Your task to perform on an android device: toggle translation in the chrome app Image 0: 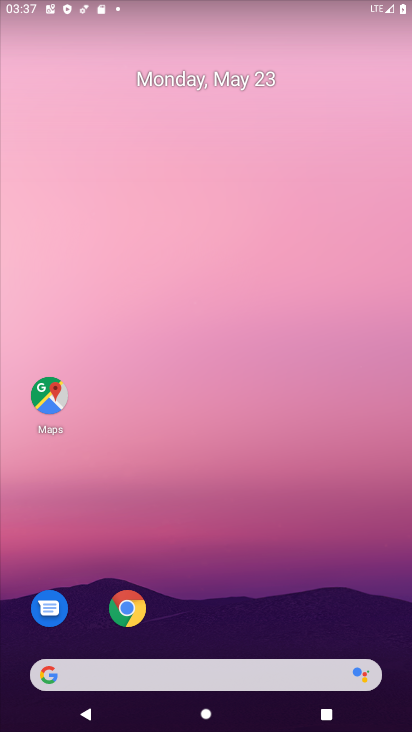
Step 0: click (127, 608)
Your task to perform on an android device: toggle translation in the chrome app Image 1: 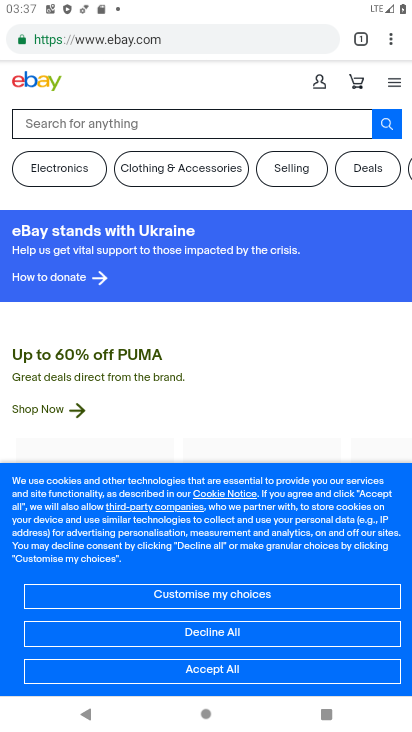
Step 1: click (392, 38)
Your task to perform on an android device: toggle translation in the chrome app Image 2: 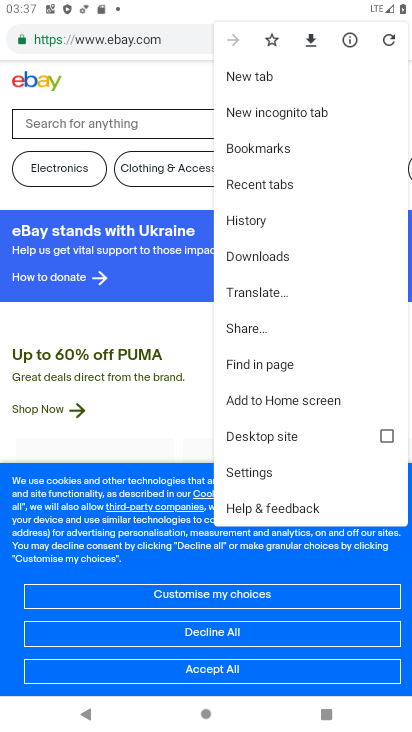
Step 2: click (267, 473)
Your task to perform on an android device: toggle translation in the chrome app Image 3: 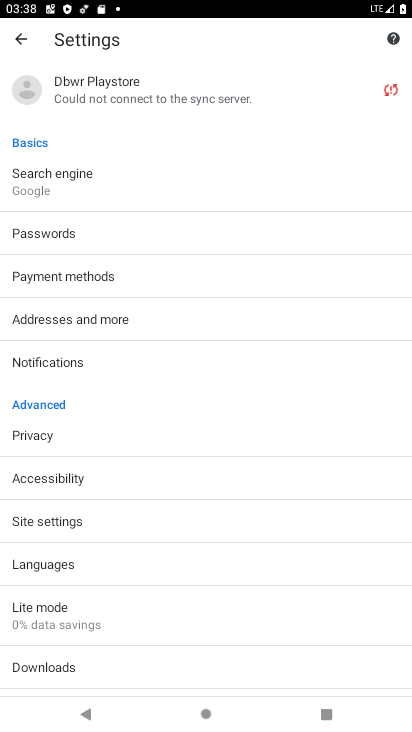
Step 3: drag from (119, 475) to (140, 398)
Your task to perform on an android device: toggle translation in the chrome app Image 4: 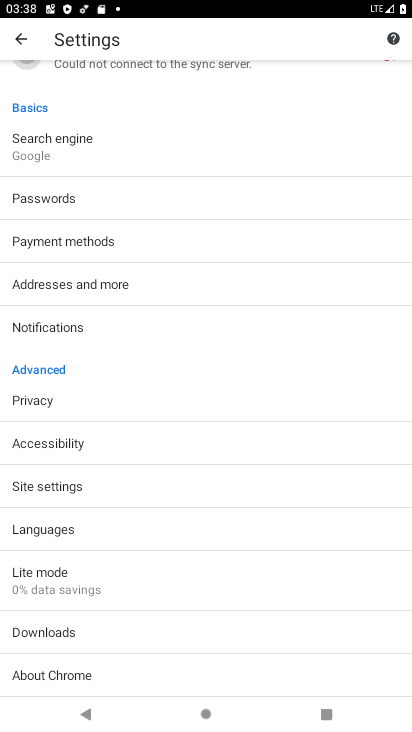
Step 4: drag from (144, 490) to (198, 407)
Your task to perform on an android device: toggle translation in the chrome app Image 5: 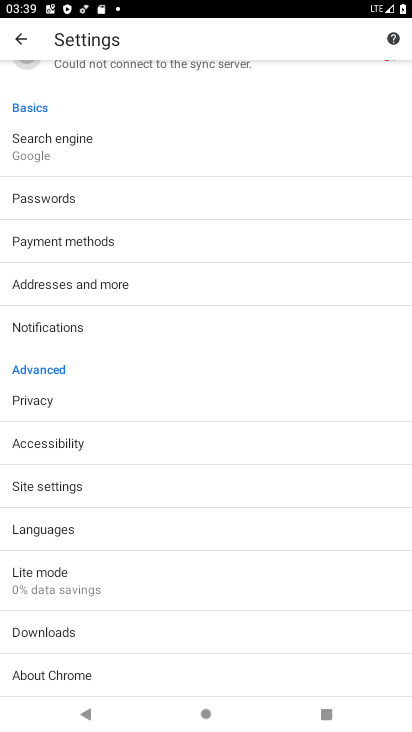
Step 5: click (54, 531)
Your task to perform on an android device: toggle translation in the chrome app Image 6: 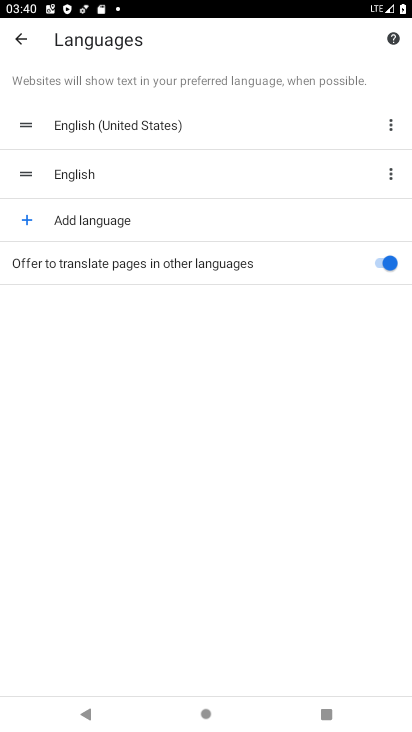
Step 6: click (387, 269)
Your task to perform on an android device: toggle translation in the chrome app Image 7: 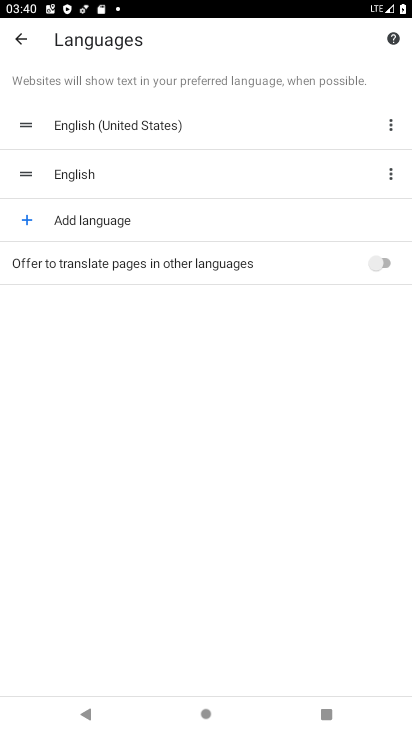
Step 7: task complete